Your task to perform on an android device: Set the phone to "Do not disturb". Image 0: 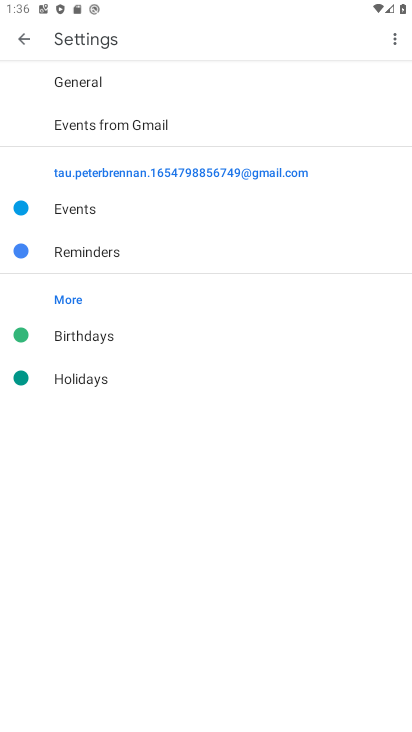
Step 0: press home button
Your task to perform on an android device: Set the phone to "Do not disturb". Image 1: 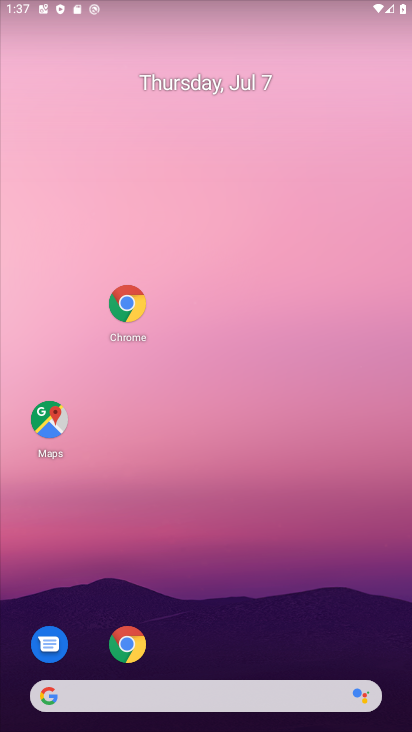
Step 1: drag from (273, 553) to (314, 51)
Your task to perform on an android device: Set the phone to "Do not disturb". Image 2: 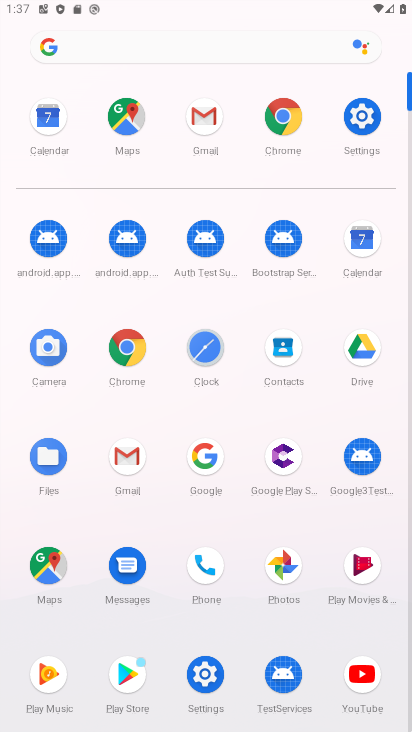
Step 2: click (352, 139)
Your task to perform on an android device: Set the phone to "Do not disturb". Image 3: 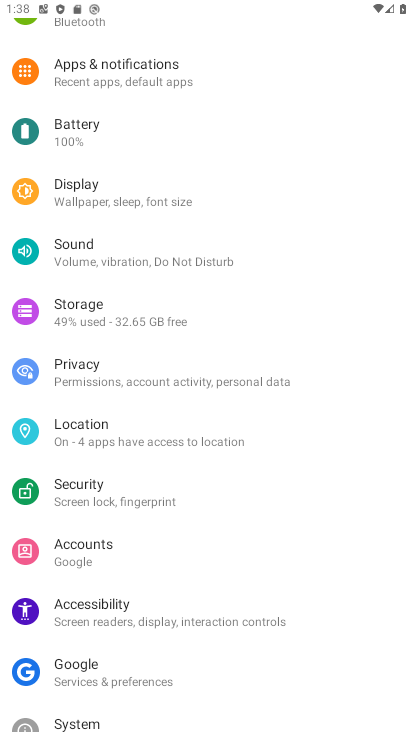
Step 3: click (235, 250)
Your task to perform on an android device: Set the phone to "Do not disturb". Image 4: 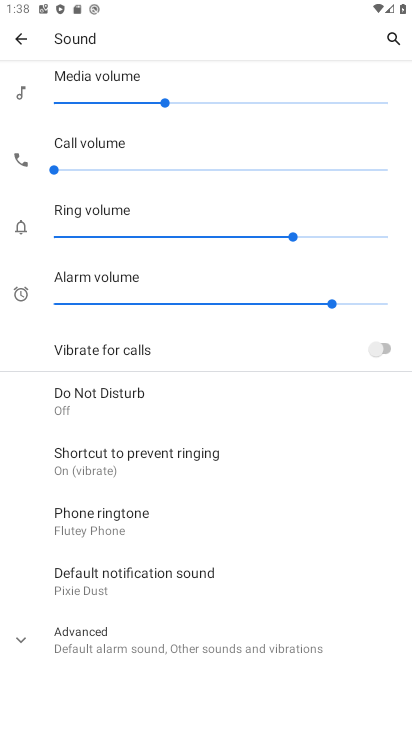
Step 4: click (180, 385)
Your task to perform on an android device: Set the phone to "Do not disturb". Image 5: 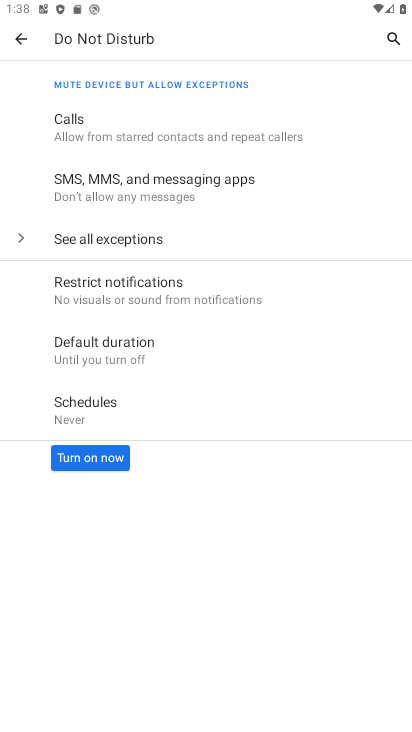
Step 5: click (104, 451)
Your task to perform on an android device: Set the phone to "Do not disturb". Image 6: 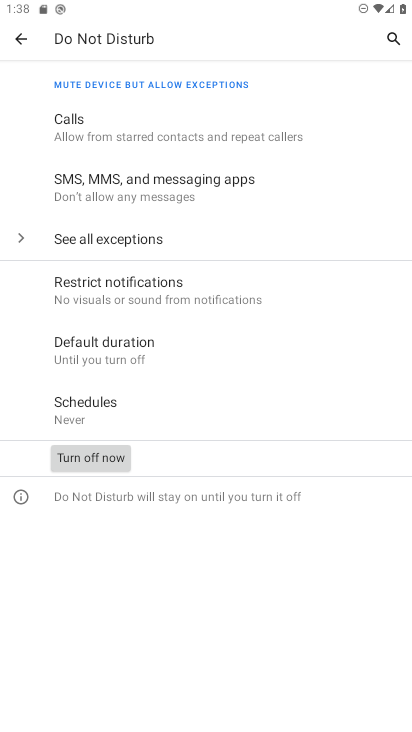
Step 6: task complete